Your task to perform on an android device: change keyboard looks Image 0: 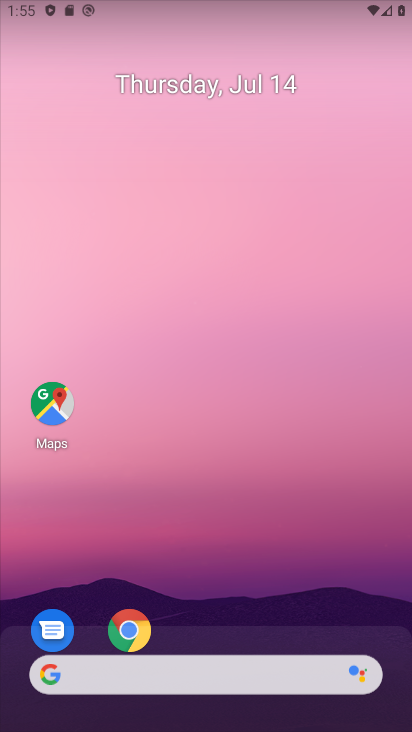
Step 0: drag from (224, 642) to (234, 72)
Your task to perform on an android device: change keyboard looks Image 1: 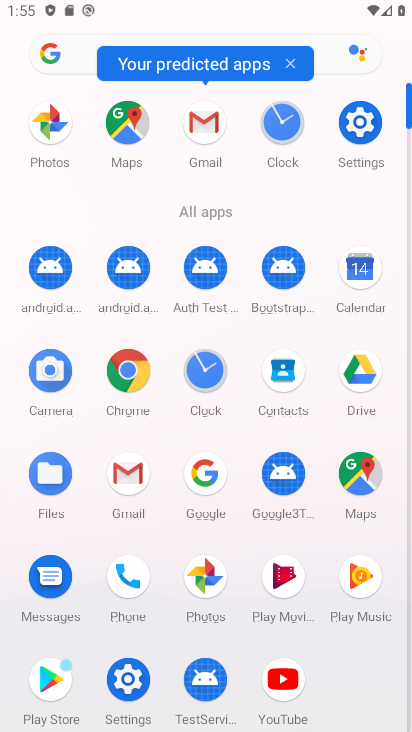
Step 1: click (358, 119)
Your task to perform on an android device: change keyboard looks Image 2: 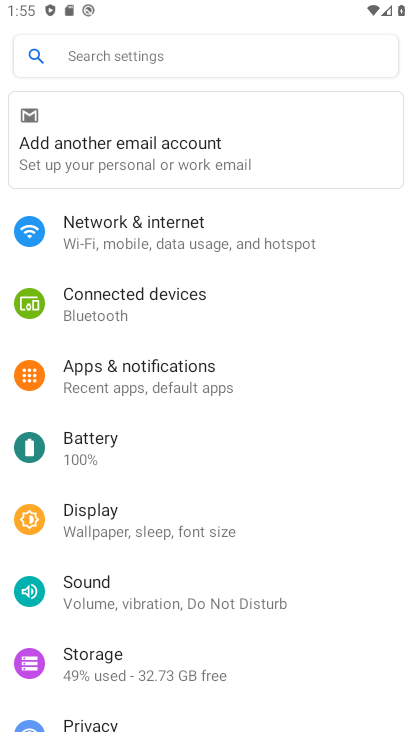
Step 2: drag from (228, 657) to (212, 83)
Your task to perform on an android device: change keyboard looks Image 3: 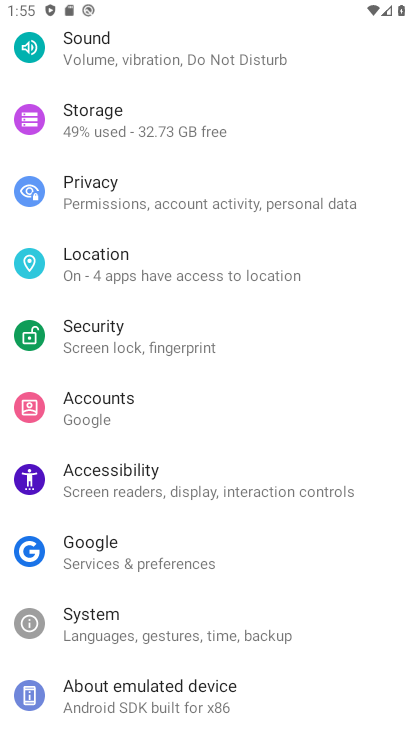
Step 3: click (156, 607)
Your task to perform on an android device: change keyboard looks Image 4: 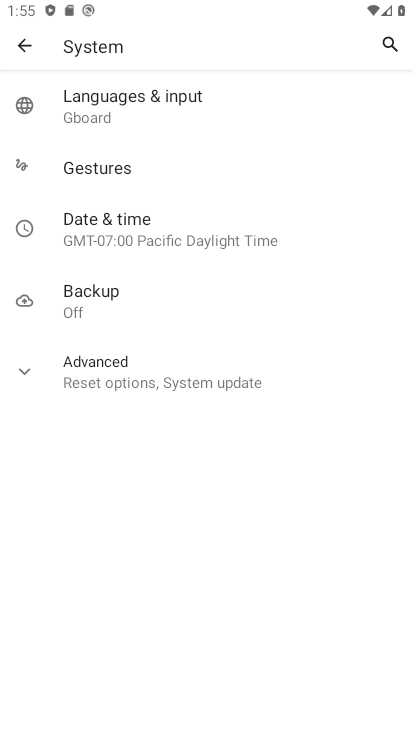
Step 4: click (43, 102)
Your task to perform on an android device: change keyboard looks Image 5: 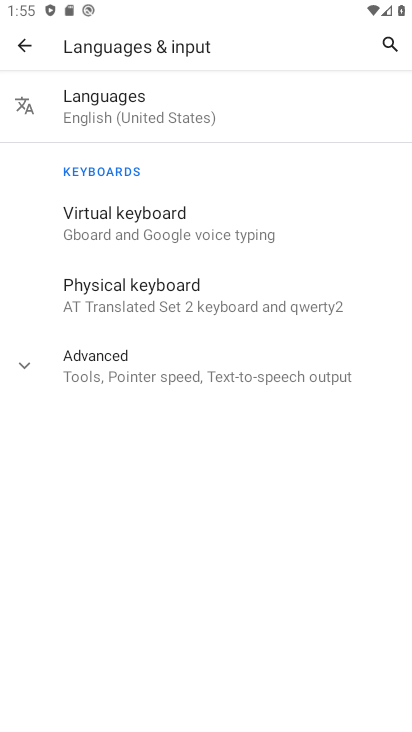
Step 5: click (108, 221)
Your task to perform on an android device: change keyboard looks Image 6: 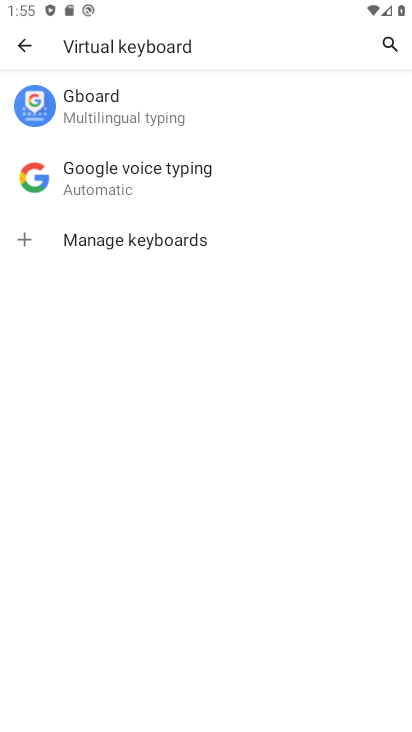
Step 6: click (112, 93)
Your task to perform on an android device: change keyboard looks Image 7: 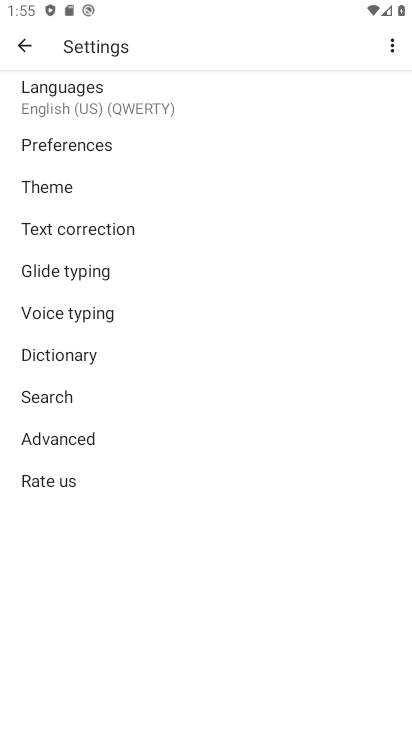
Step 7: click (76, 181)
Your task to perform on an android device: change keyboard looks Image 8: 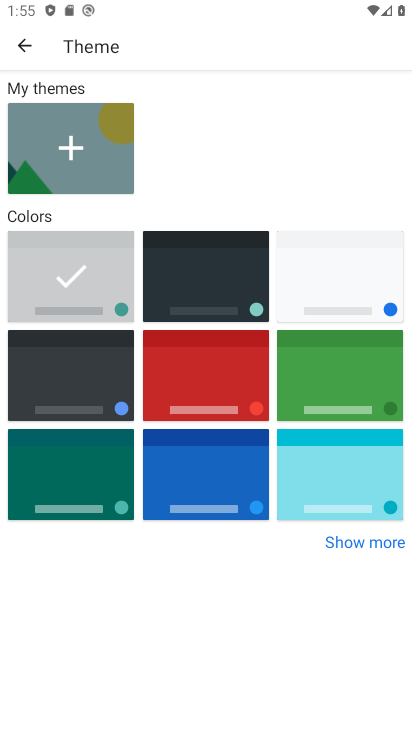
Step 8: click (342, 381)
Your task to perform on an android device: change keyboard looks Image 9: 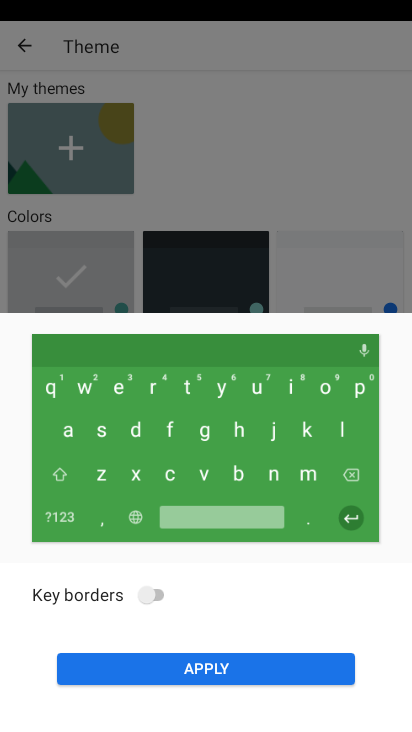
Step 9: click (205, 662)
Your task to perform on an android device: change keyboard looks Image 10: 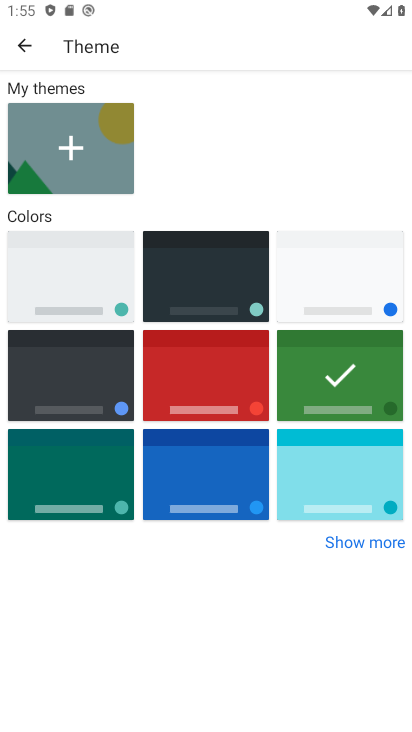
Step 10: task complete